Your task to perform on an android device: Open calendar and show me the second week of next month Image 0: 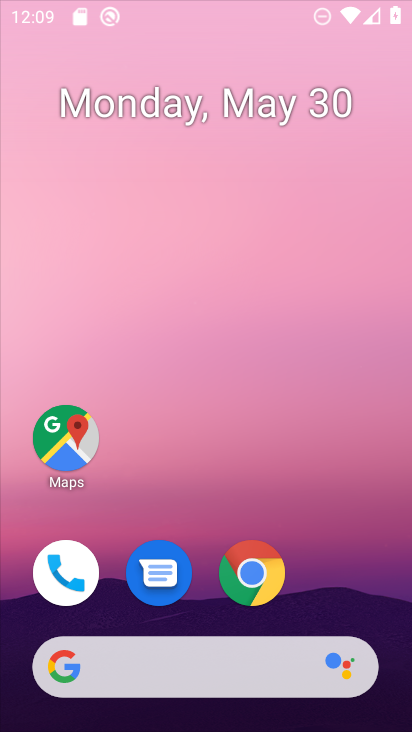
Step 0: press home button
Your task to perform on an android device: Open calendar and show me the second week of next month Image 1: 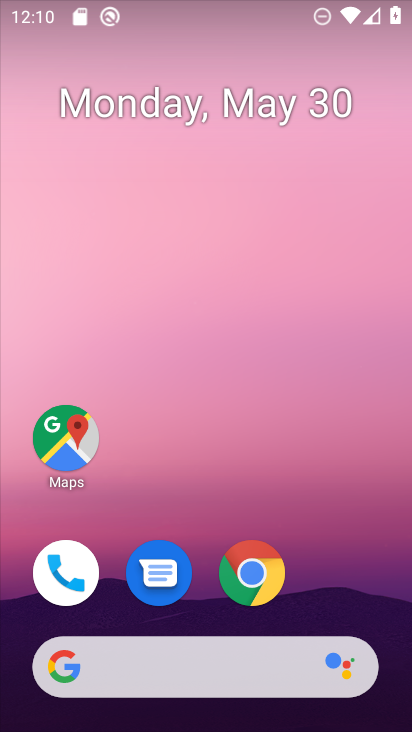
Step 1: drag from (327, 589) to (212, 7)
Your task to perform on an android device: Open calendar and show me the second week of next month Image 2: 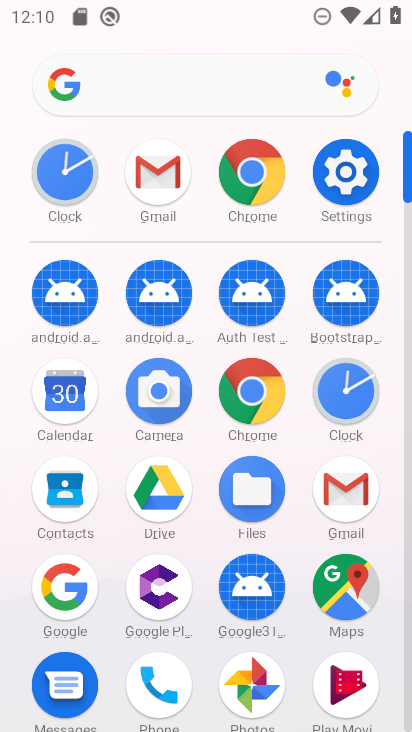
Step 2: click (59, 416)
Your task to perform on an android device: Open calendar and show me the second week of next month Image 3: 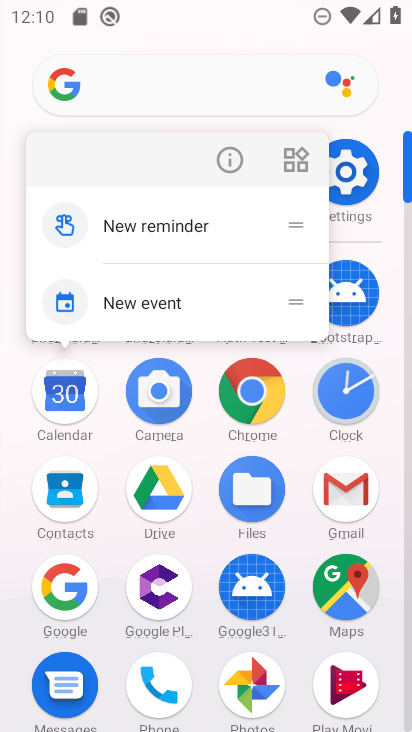
Step 3: click (71, 390)
Your task to perform on an android device: Open calendar and show me the second week of next month Image 4: 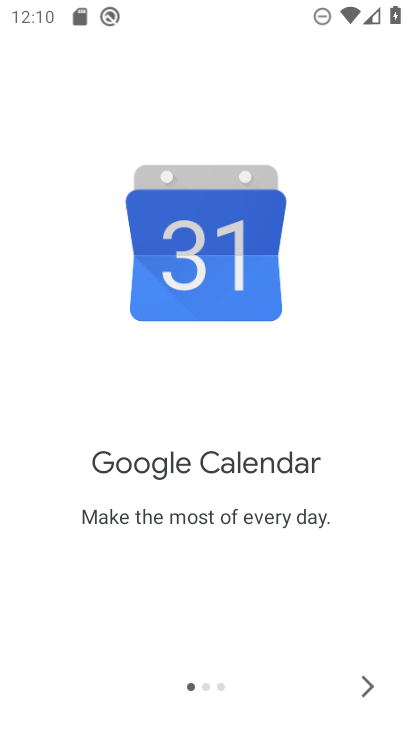
Step 4: click (360, 683)
Your task to perform on an android device: Open calendar and show me the second week of next month Image 5: 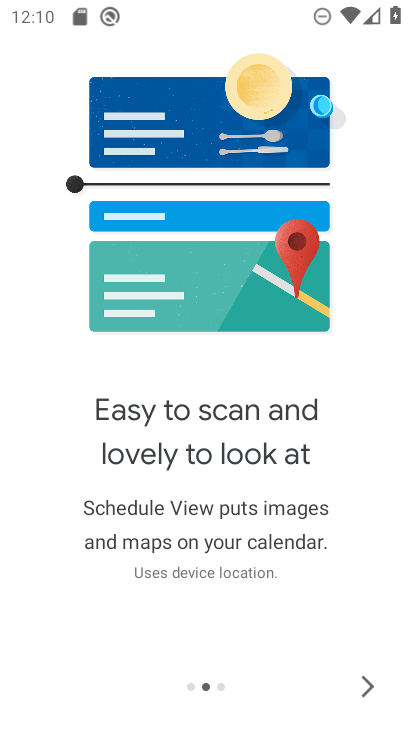
Step 5: click (365, 693)
Your task to perform on an android device: Open calendar and show me the second week of next month Image 6: 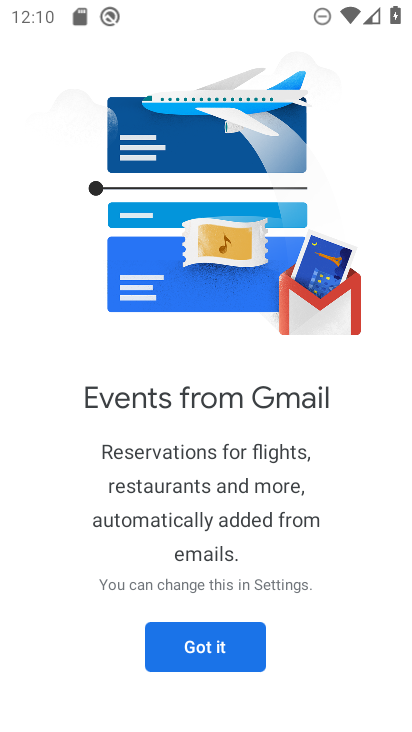
Step 6: click (184, 645)
Your task to perform on an android device: Open calendar and show me the second week of next month Image 7: 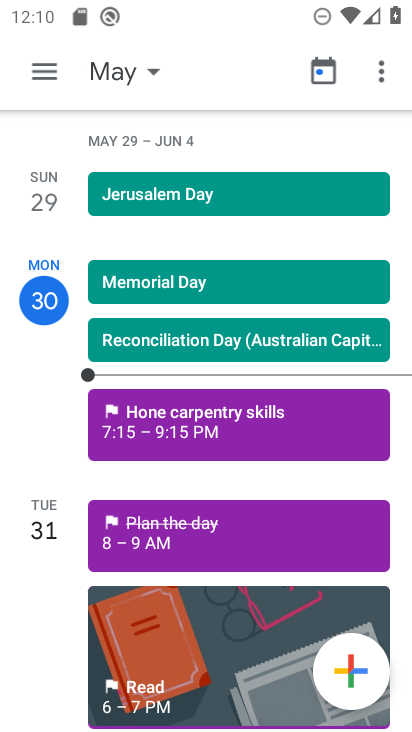
Step 7: click (155, 77)
Your task to perform on an android device: Open calendar and show me the second week of next month Image 8: 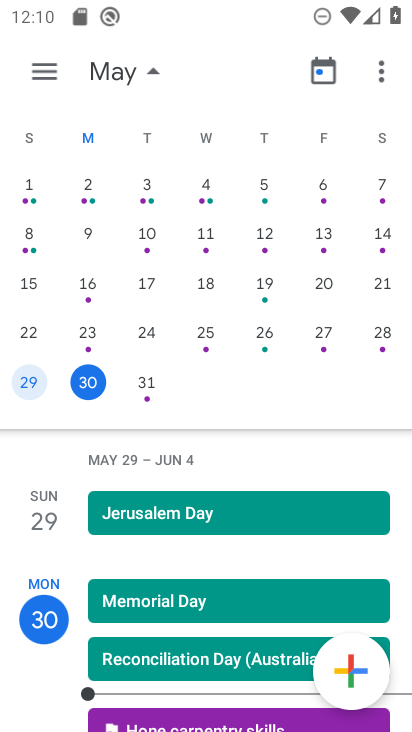
Step 8: drag from (2, 270) to (34, 256)
Your task to perform on an android device: Open calendar and show me the second week of next month Image 9: 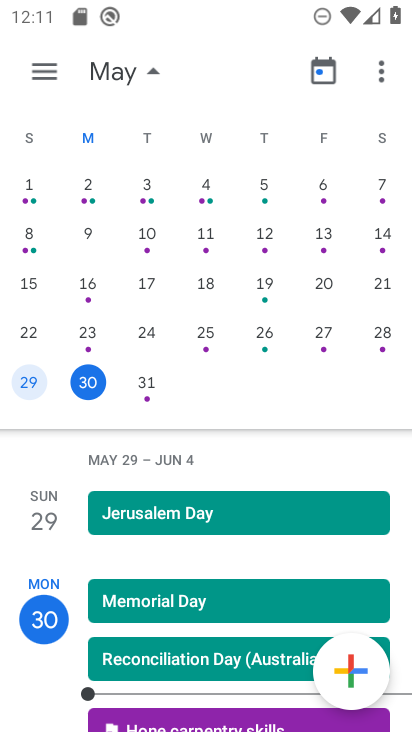
Step 9: drag from (319, 254) to (20, 276)
Your task to perform on an android device: Open calendar and show me the second week of next month Image 10: 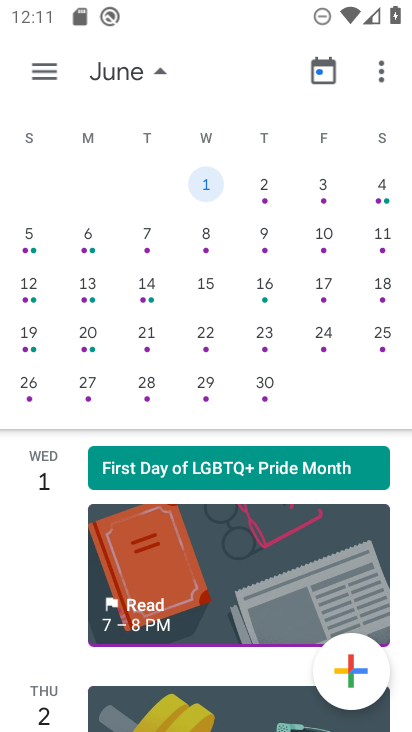
Step 10: click (207, 235)
Your task to perform on an android device: Open calendar and show me the second week of next month Image 11: 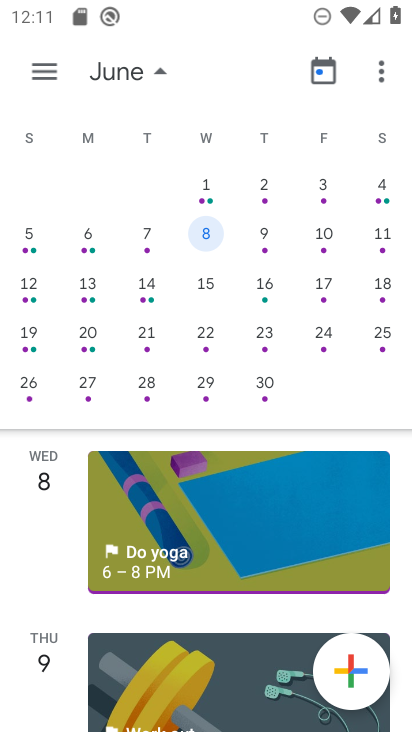
Step 11: task complete